Your task to perform on an android device: turn off notifications in google photos Image 0: 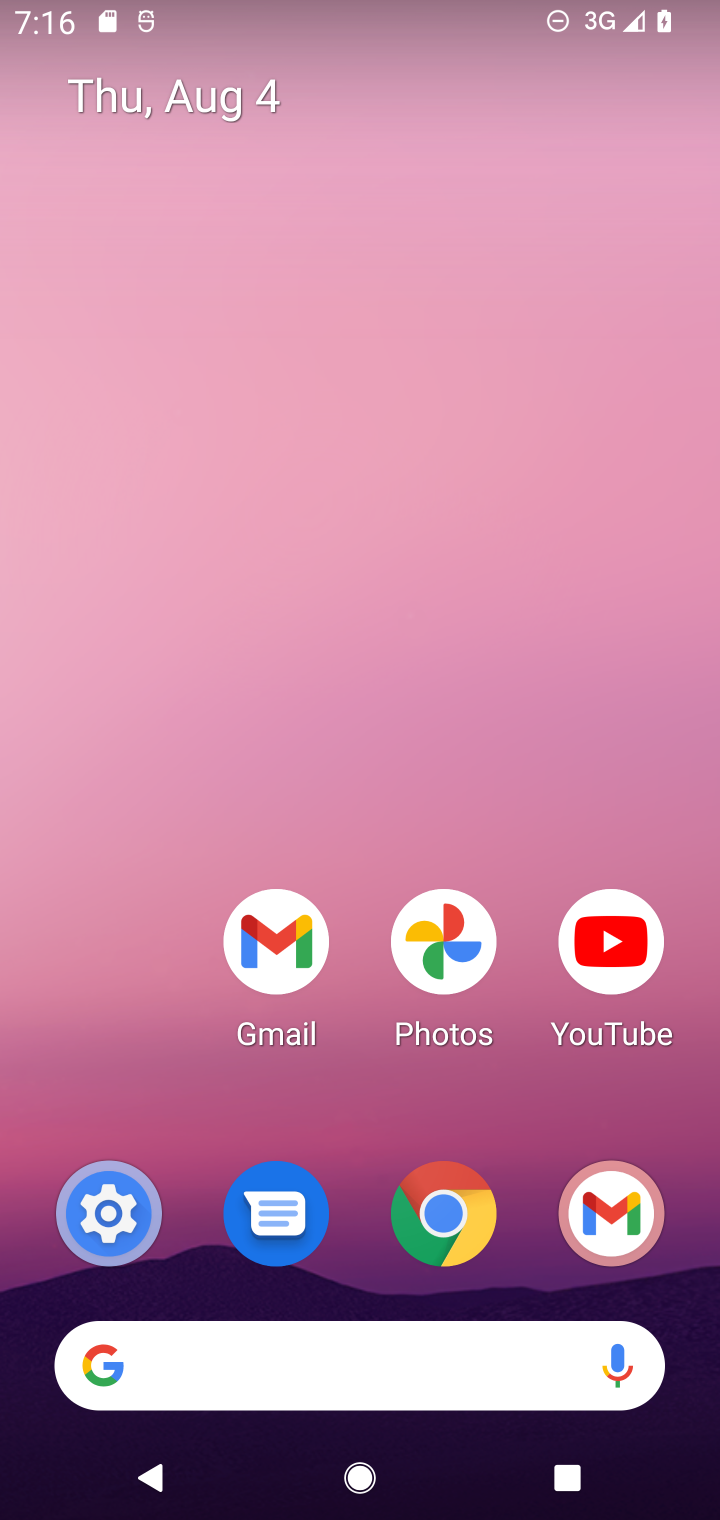
Step 0: drag from (153, 1113) to (125, 524)
Your task to perform on an android device: turn off notifications in google photos Image 1: 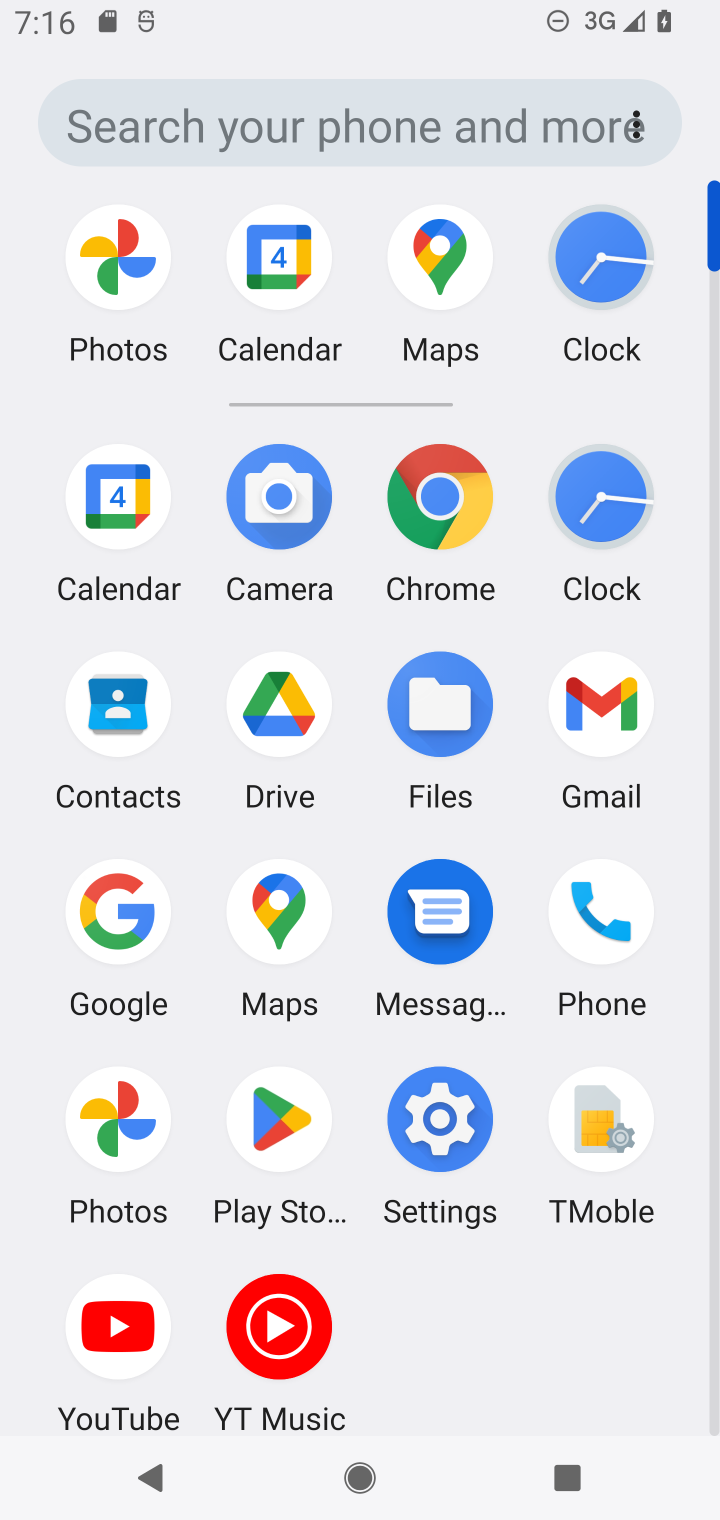
Step 1: click (114, 1123)
Your task to perform on an android device: turn off notifications in google photos Image 2: 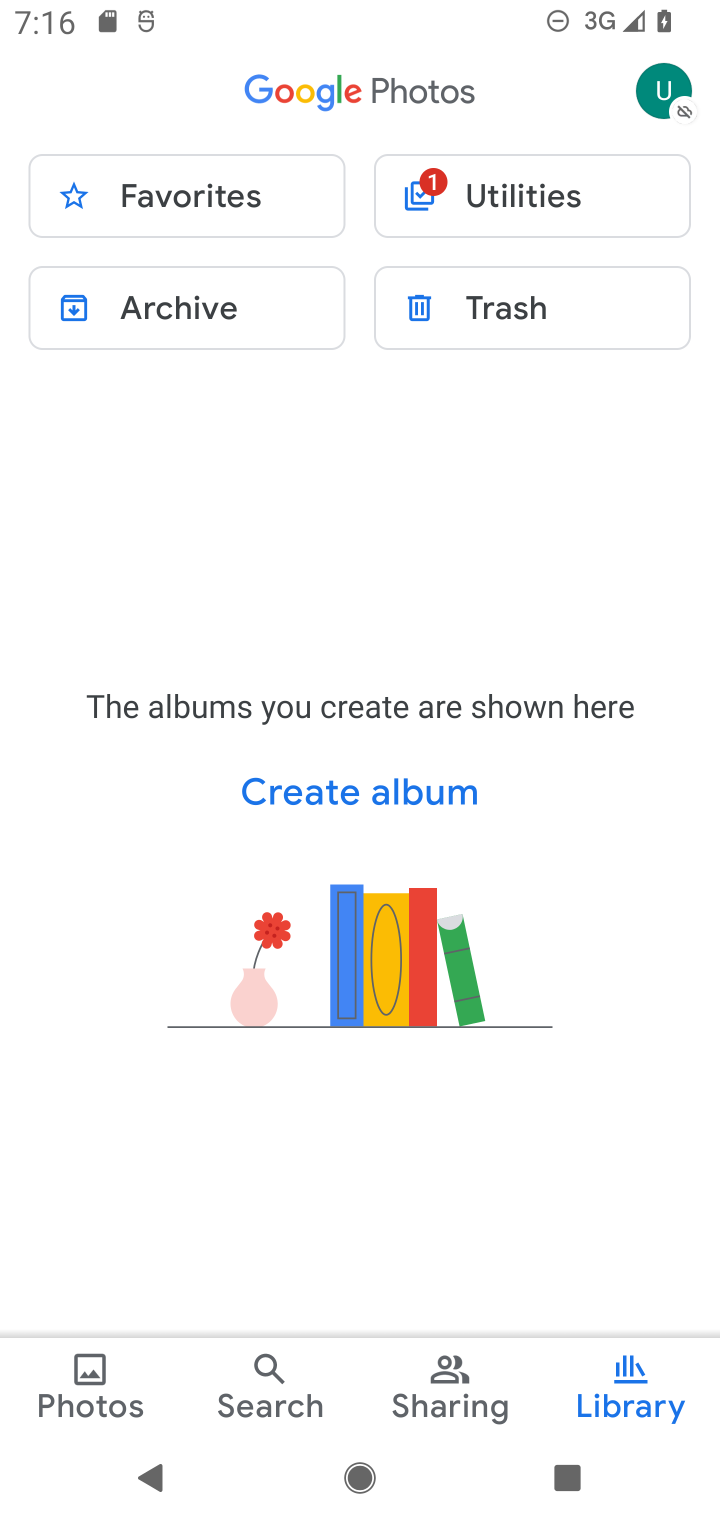
Step 2: click (654, 75)
Your task to perform on an android device: turn off notifications in google photos Image 3: 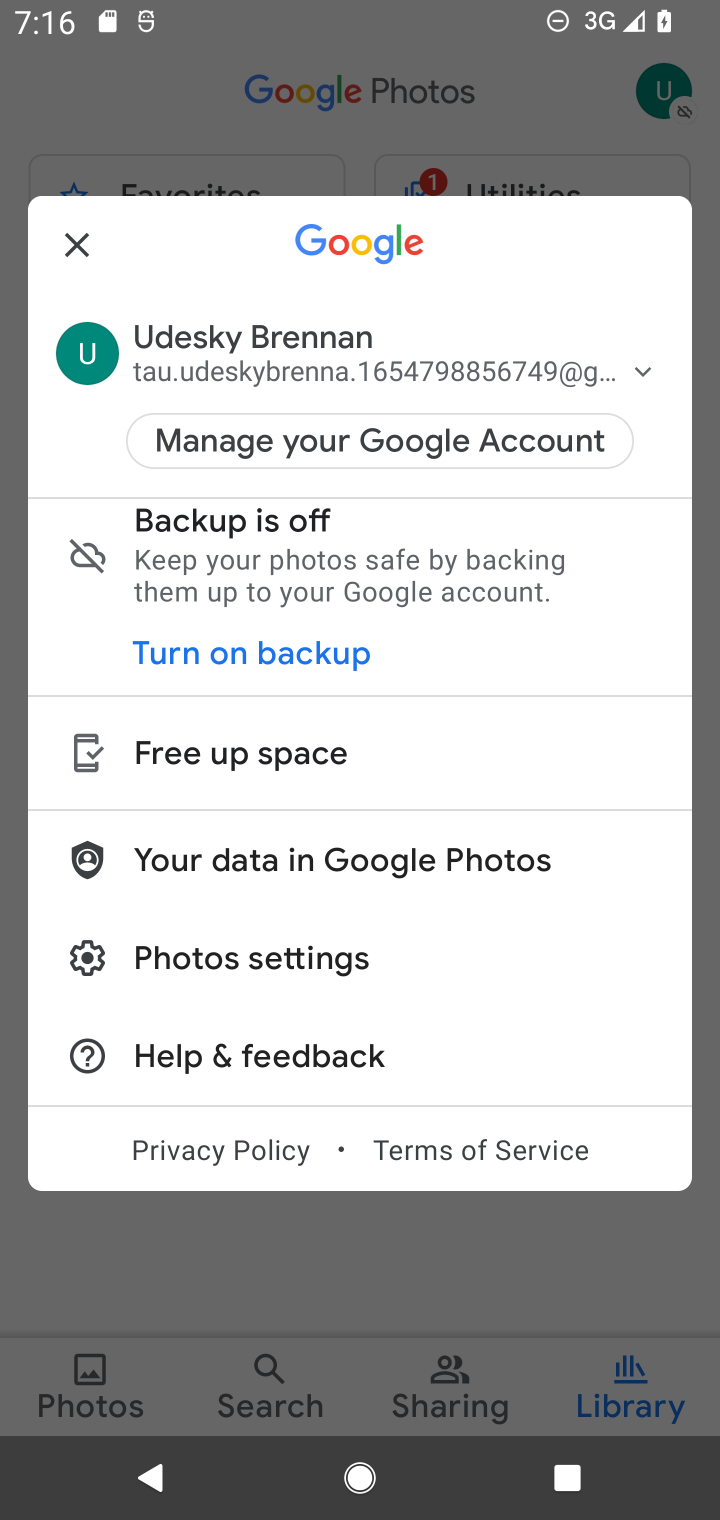
Step 3: click (482, 976)
Your task to perform on an android device: turn off notifications in google photos Image 4: 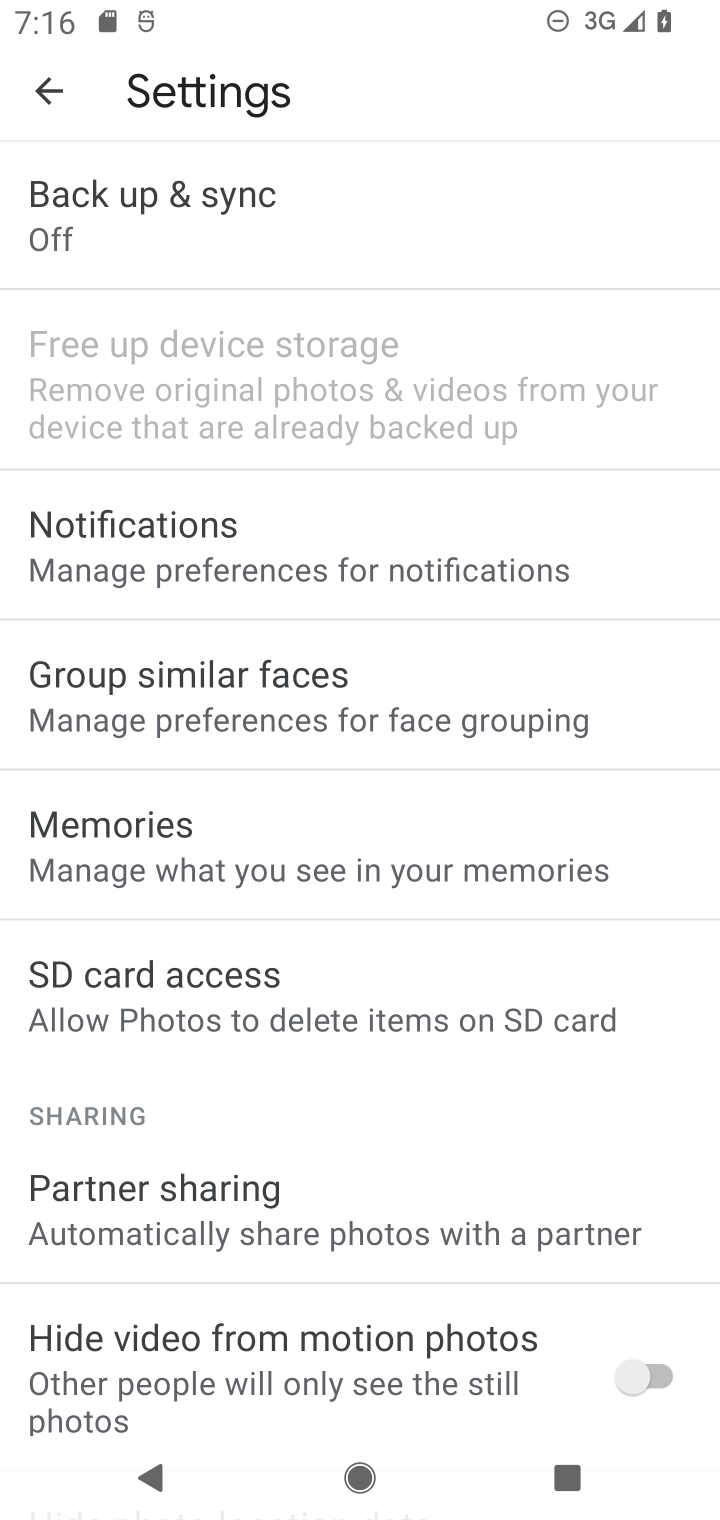
Step 4: drag from (461, 1131) to (465, 831)
Your task to perform on an android device: turn off notifications in google photos Image 5: 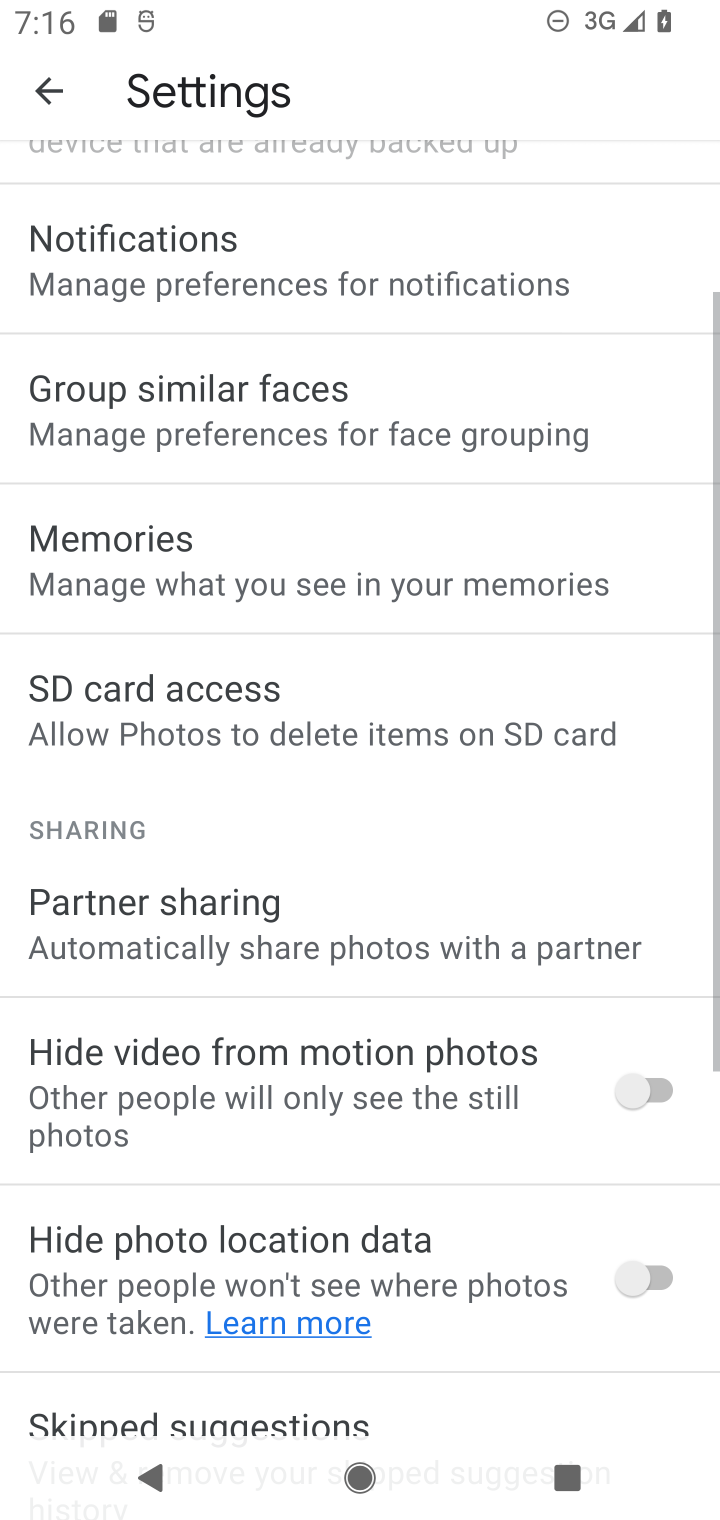
Step 5: click (451, 266)
Your task to perform on an android device: turn off notifications in google photos Image 6: 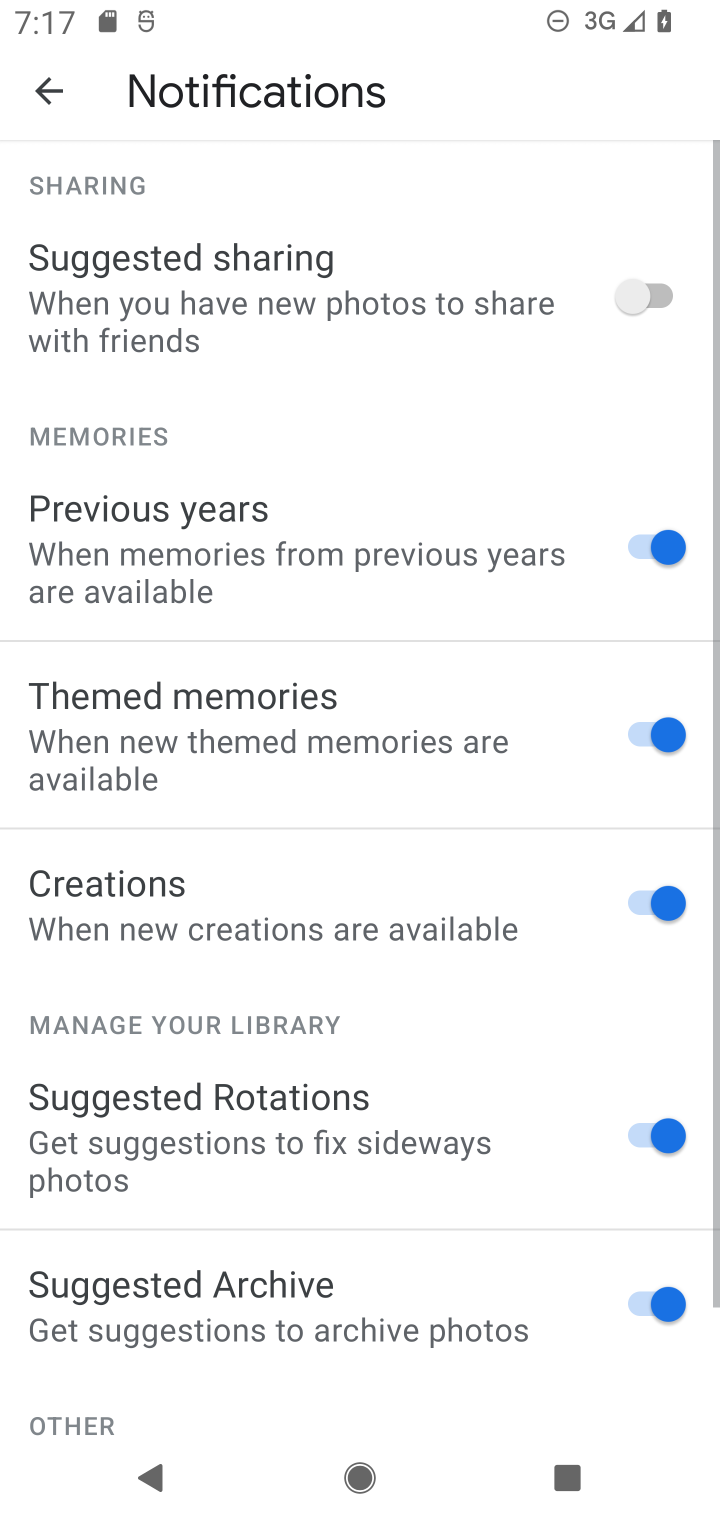
Step 6: drag from (373, 1083) to (339, 652)
Your task to perform on an android device: turn off notifications in google photos Image 7: 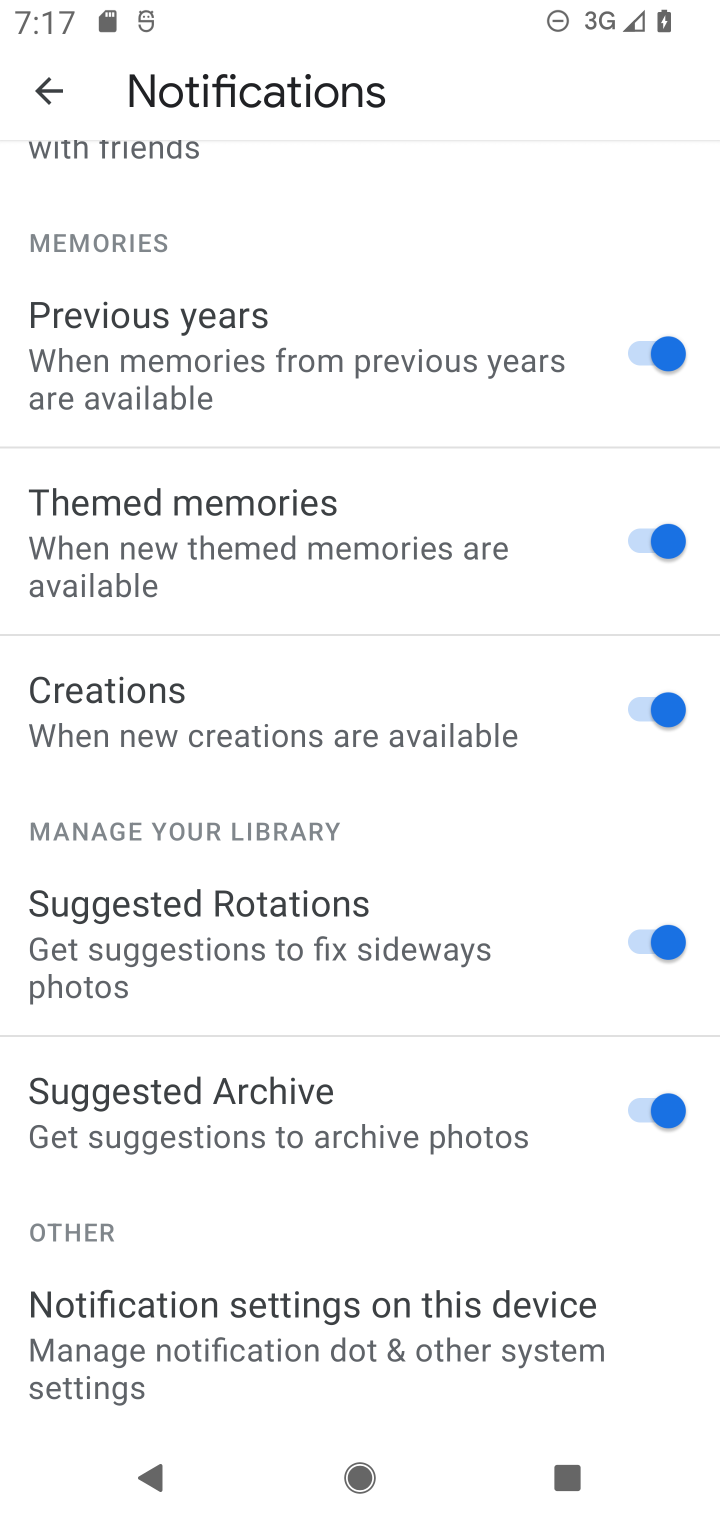
Step 7: drag from (383, 1196) to (401, 546)
Your task to perform on an android device: turn off notifications in google photos Image 8: 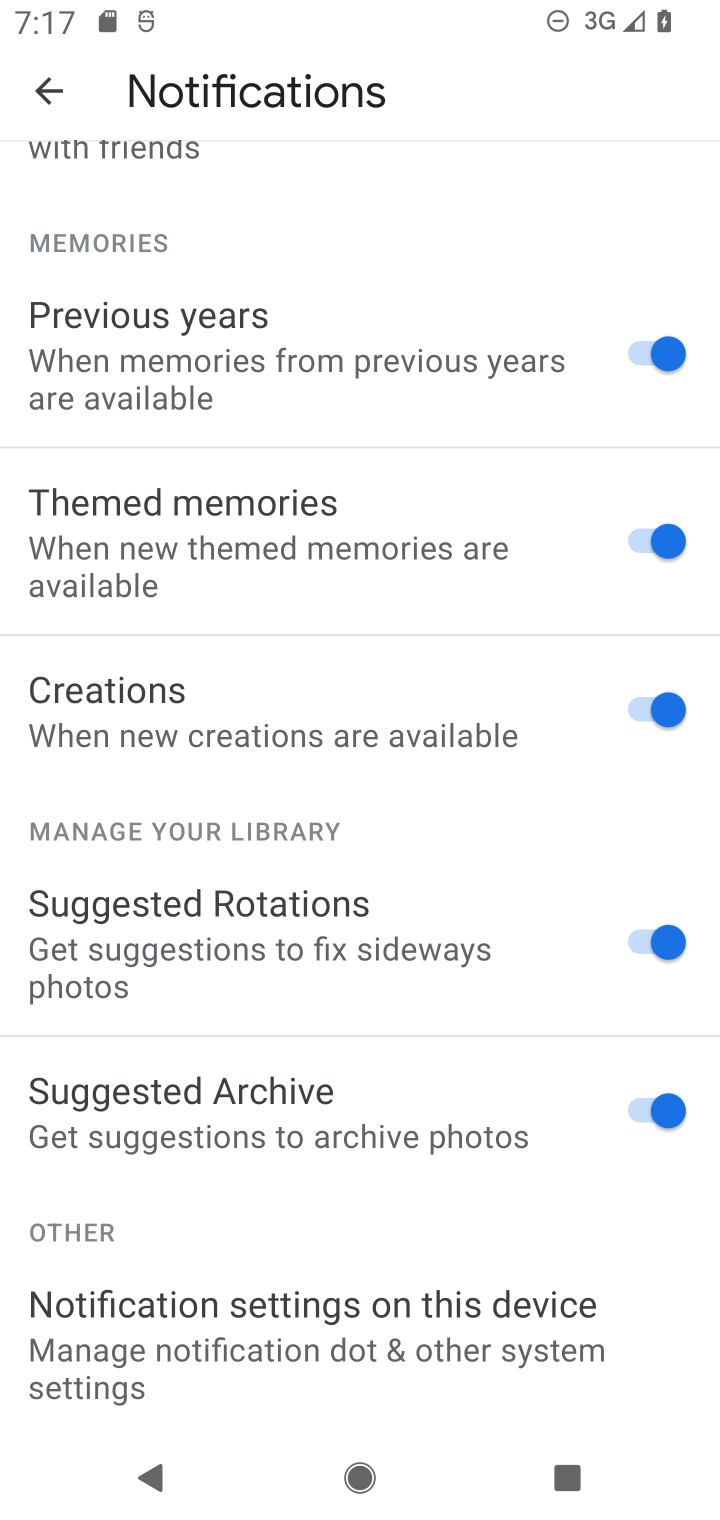
Step 8: click (434, 1333)
Your task to perform on an android device: turn off notifications in google photos Image 9: 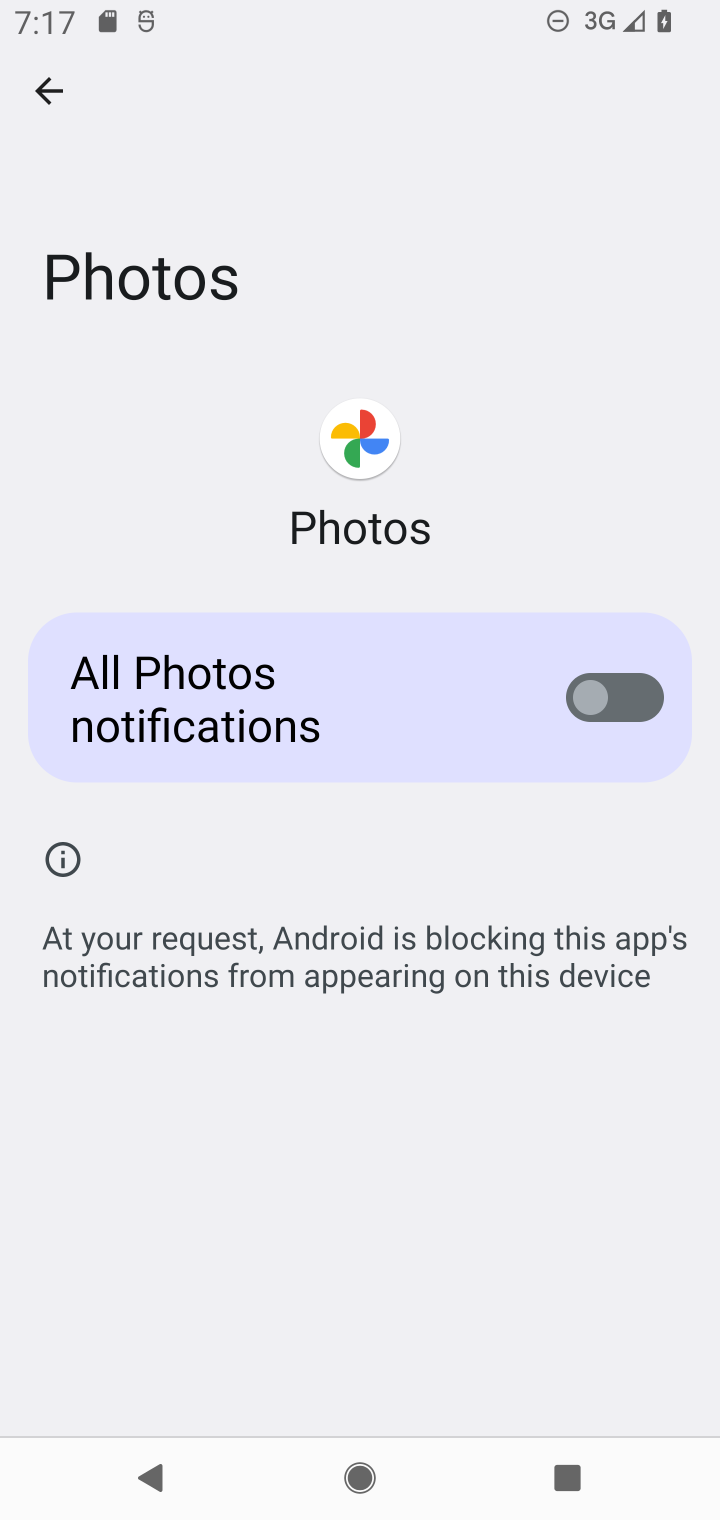
Step 9: task complete